Your task to perform on an android device: toggle sleep mode Image 0: 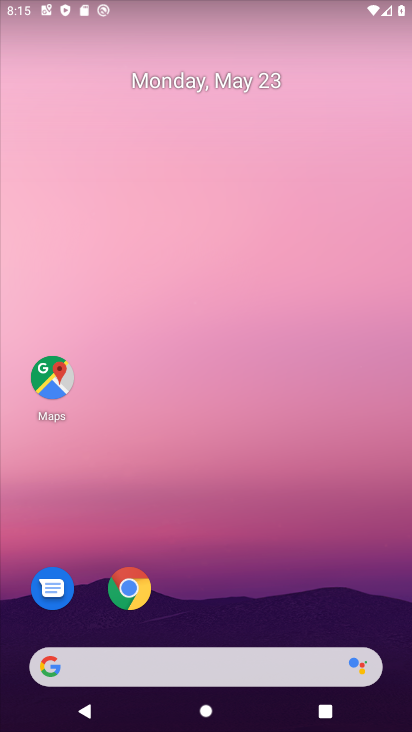
Step 0: drag from (400, 705) to (378, 172)
Your task to perform on an android device: toggle sleep mode Image 1: 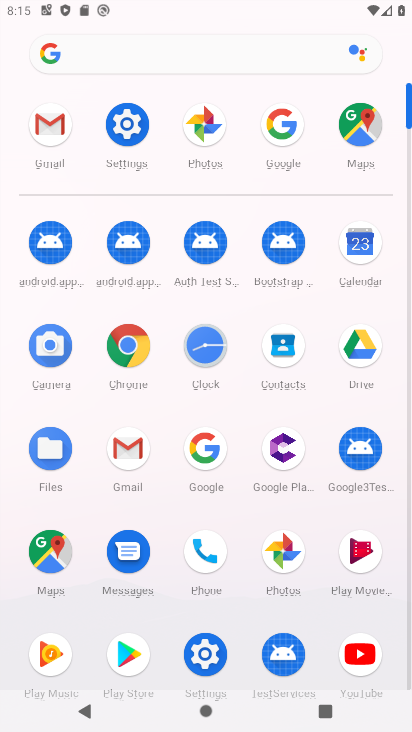
Step 1: click (126, 124)
Your task to perform on an android device: toggle sleep mode Image 2: 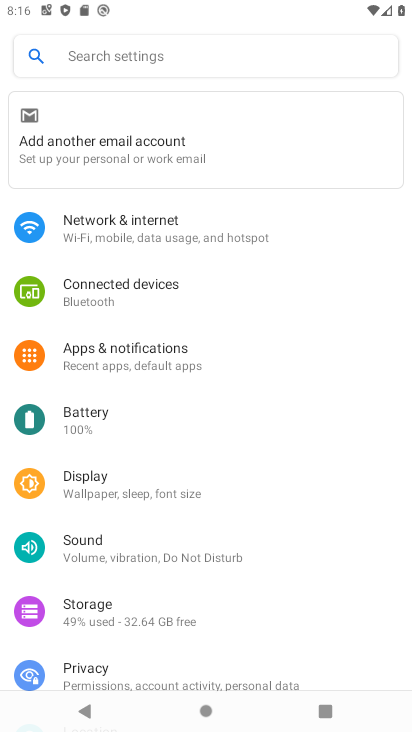
Step 2: click (85, 493)
Your task to perform on an android device: toggle sleep mode Image 3: 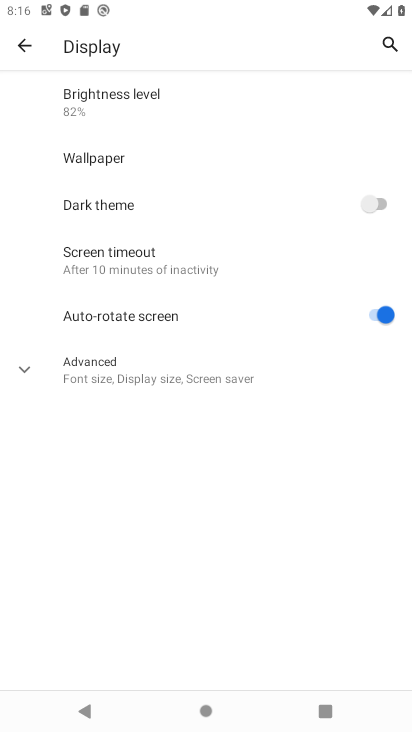
Step 3: click (99, 269)
Your task to perform on an android device: toggle sleep mode Image 4: 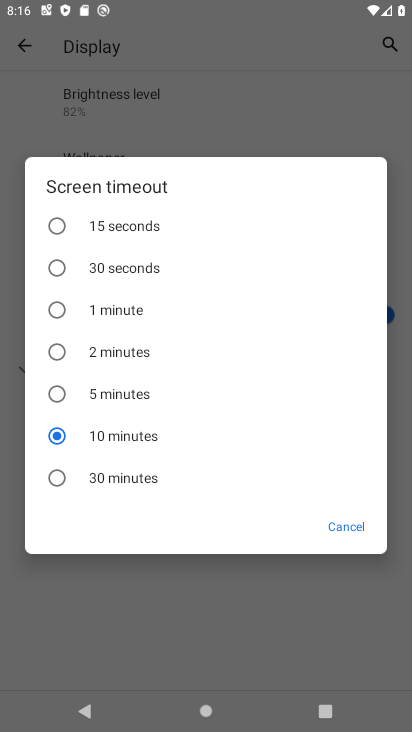
Step 4: click (58, 388)
Your task to perform on an android device: toggle sleep mode Image 5: 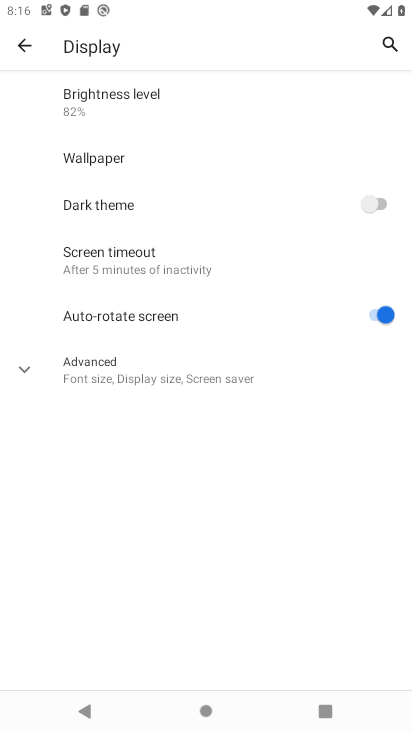
Step 5: task complete